Your task to perform on an android device: Add macbook air to the cart on walmart.com, then select checkout. Image 0: 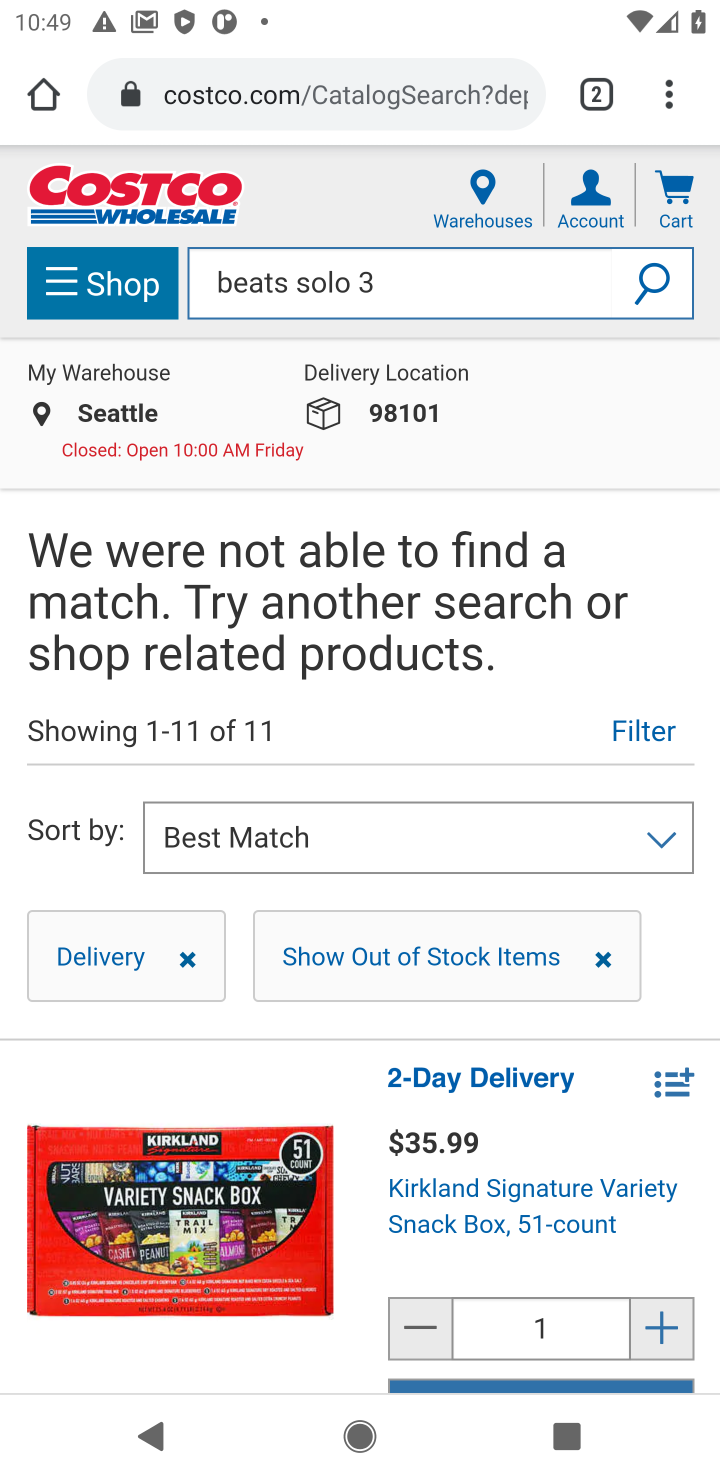
Step 0: click (266, 97)
Your task to perform on an android device: Add macbook air to the cart on walmart.com, then select checkout. Image 1: 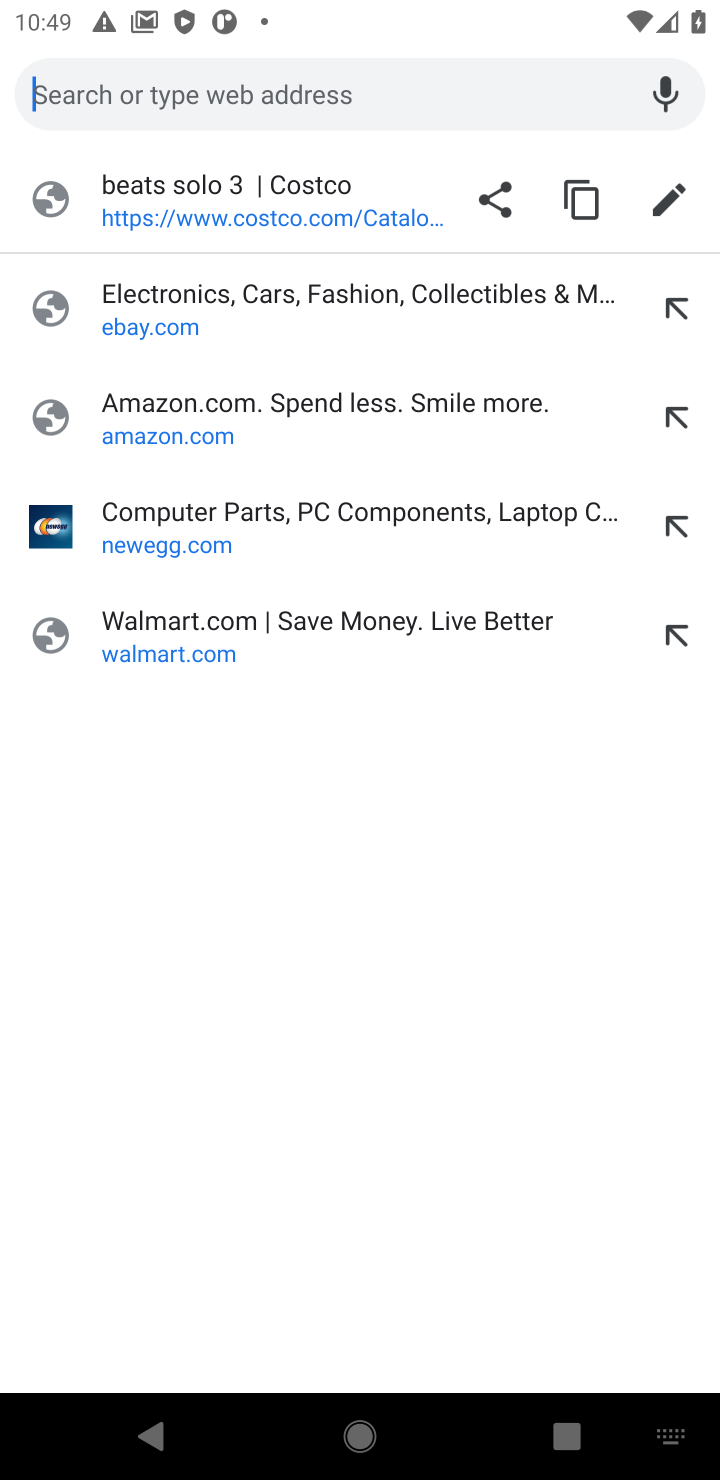
Step 1: click (168, 650)
Your task to perform on an android device: Add macbook air to the cart on walmart.com, then select checkout. Image 2: 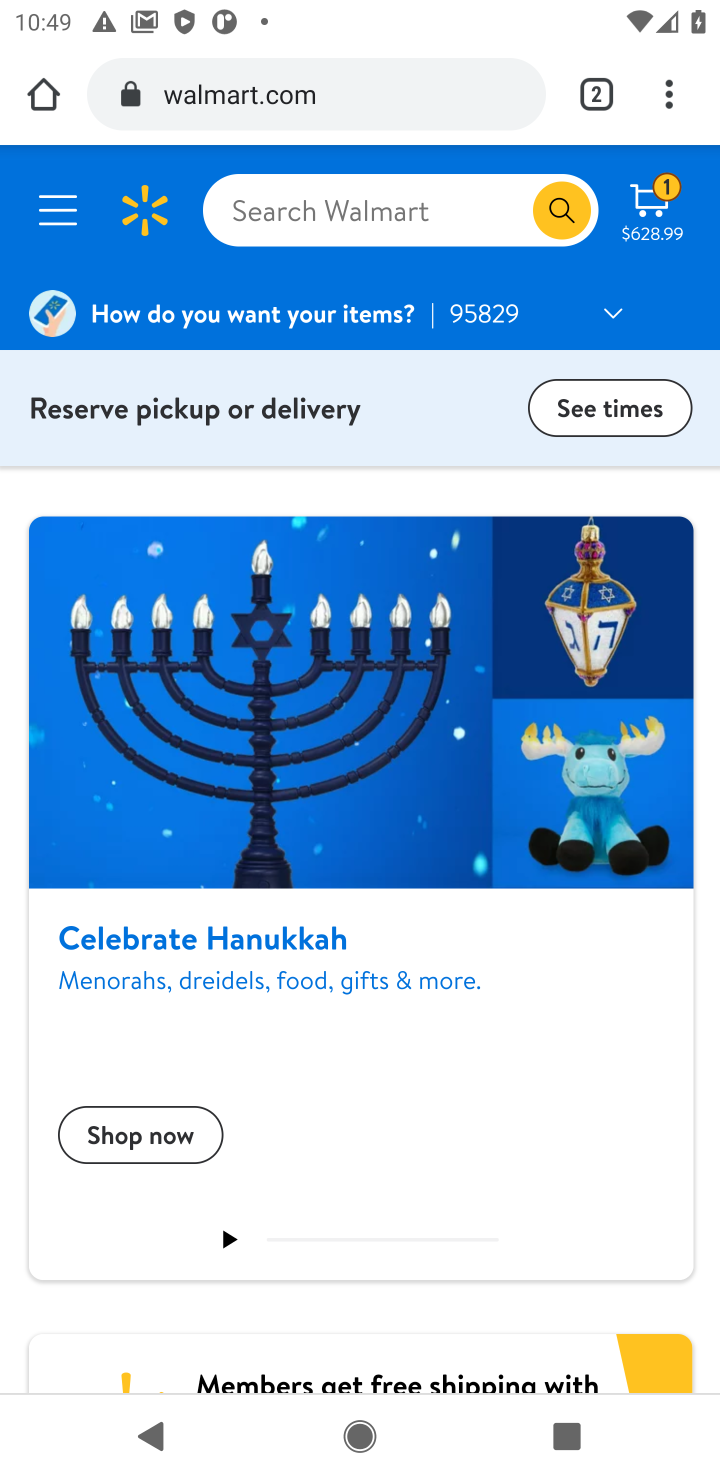
Step 2: click (316, 236)
Your task to perform on an android device: Add macbook air to the cart on walmart.com, then select checkout. Image 3: 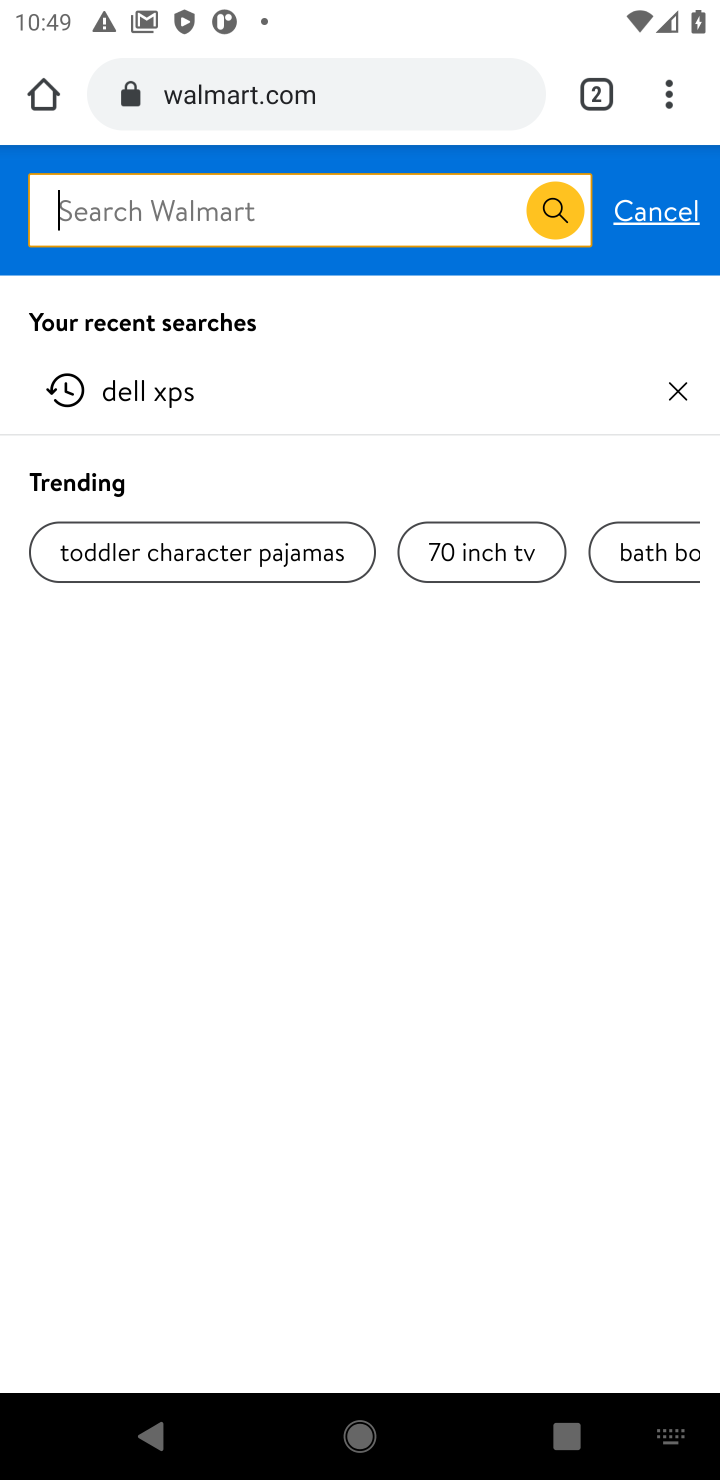
Step 3: type "macbook air"
Your task to perform on an android device: Add macbook air to the cart on walmart.com, then select checkout. Image 4: 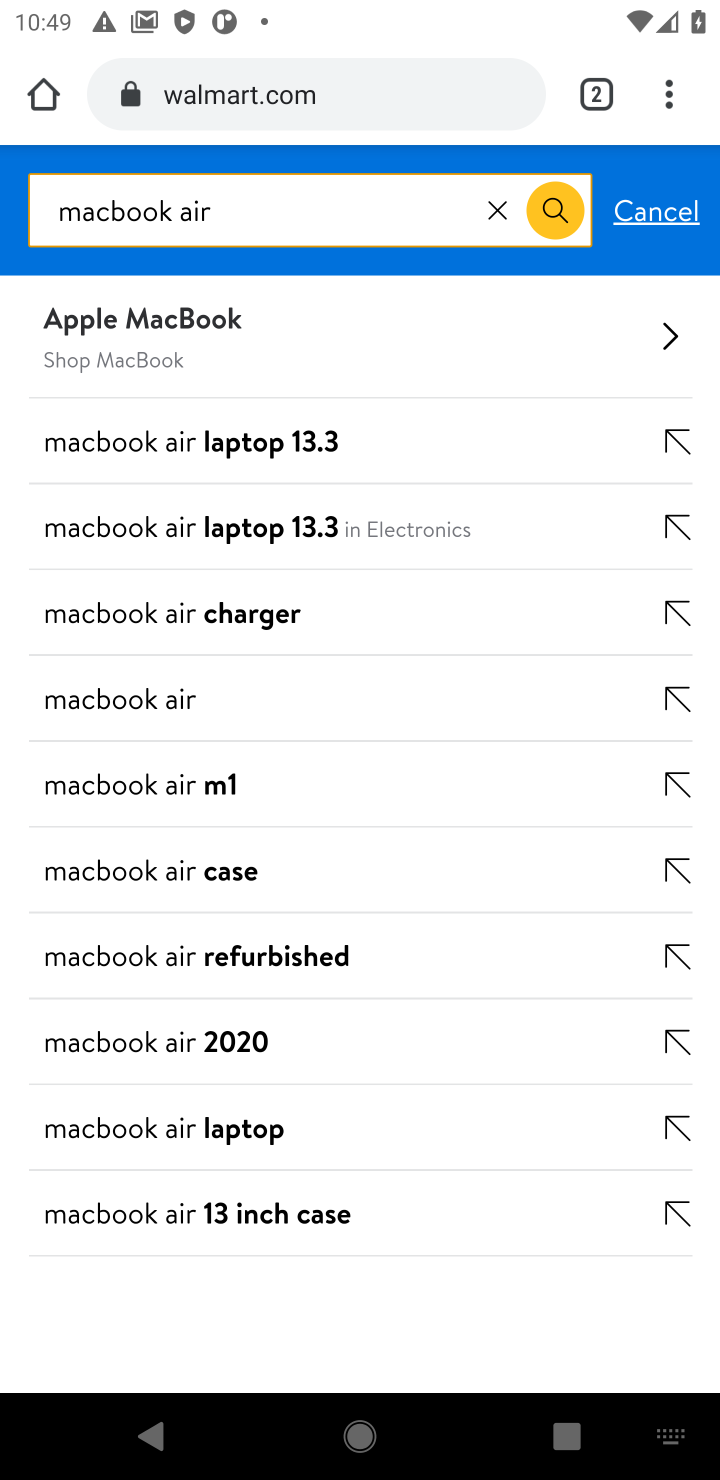
Step 4: click (170, 712)
Your task to perform on an android device: Add macbook air to the cart on walmart.com, then select checkout. Image 5: 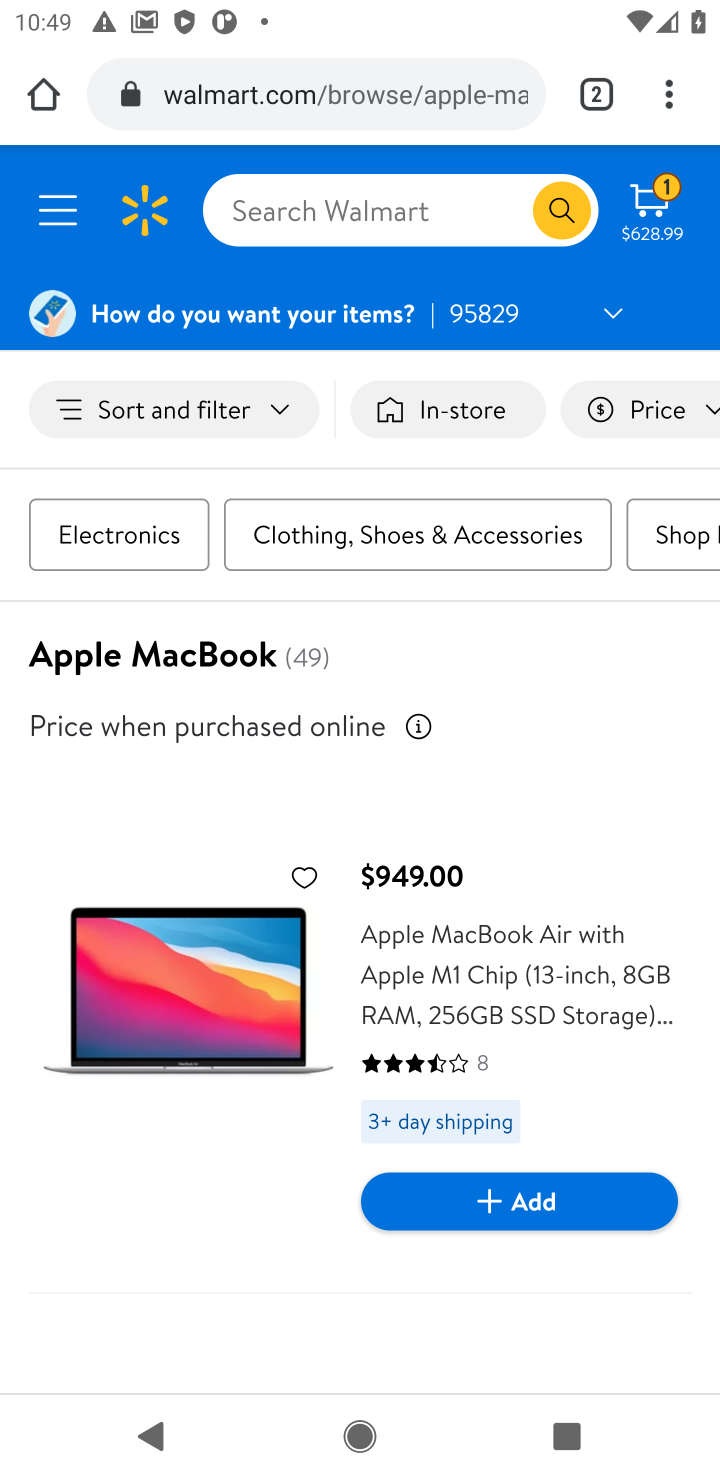
Step 5: click (507, 1198)
Your task to perform on an android device: Add macbook air to the cart on walmart.com, then select checkout. Image 6: 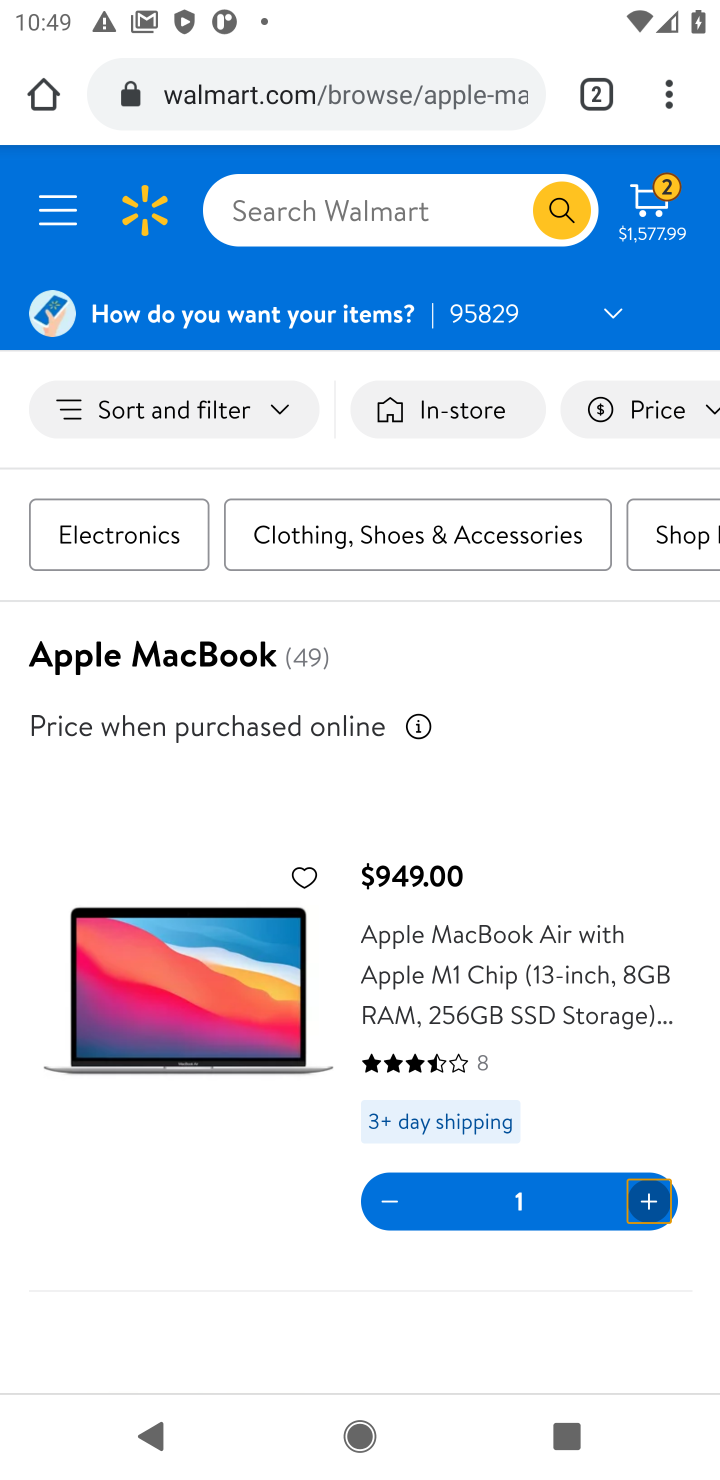
Step 6: click (669, 210)
Your task to perform on an android device: Add macbook air to the cart on walmart.com, then select checkout. Image 7: 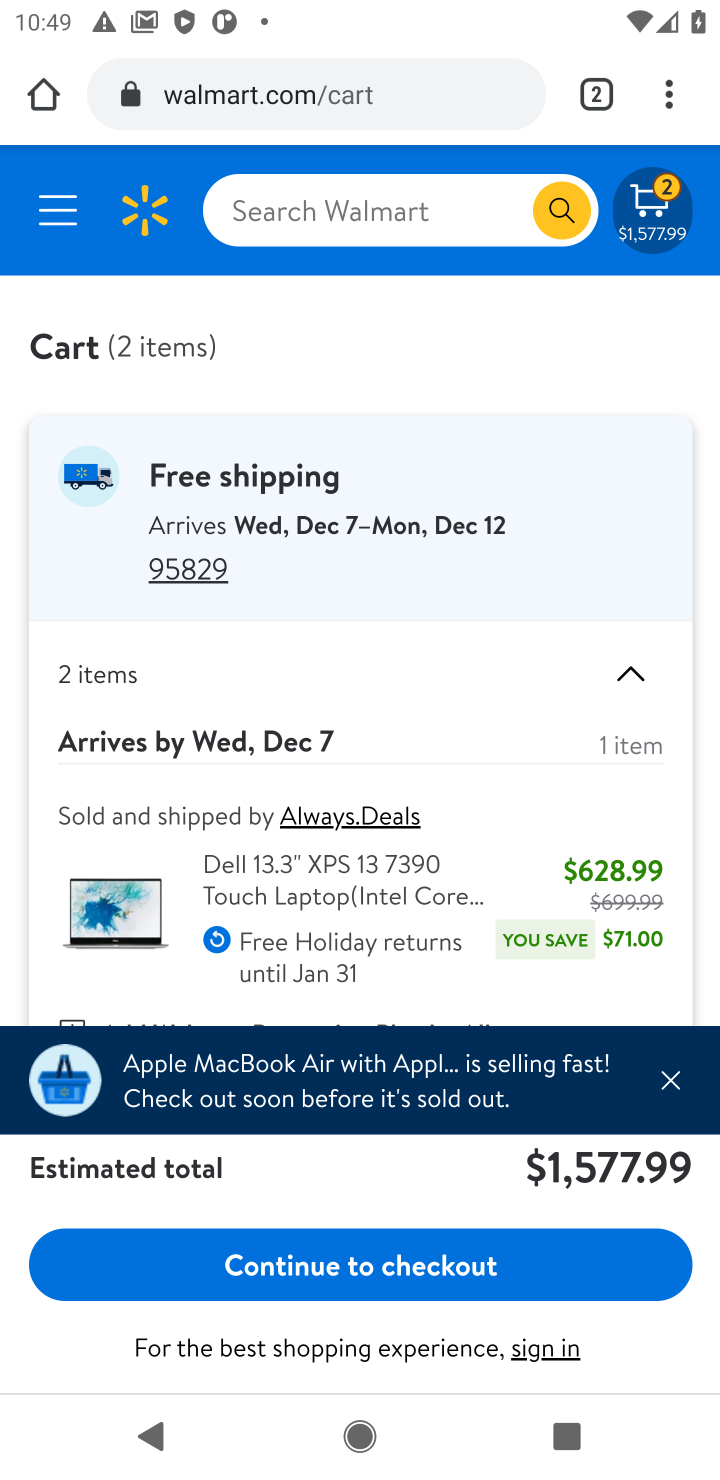
Step 7: click (335, 1266)
Your task to perform on an android device: Add macbook air to the cart on walmart.com, then select checkout. Image 8: 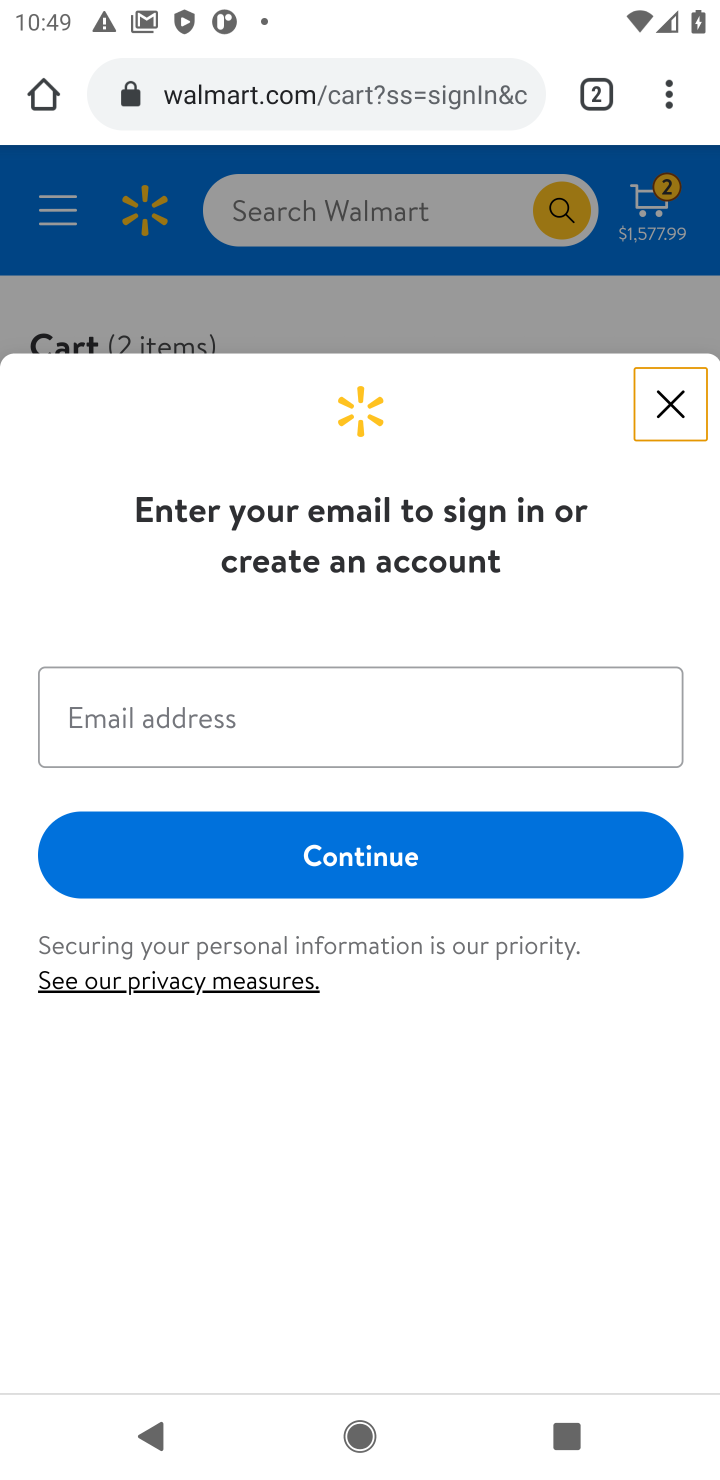
Step 8: task complete